Your task to perform on an android device: set the timer Image 0: 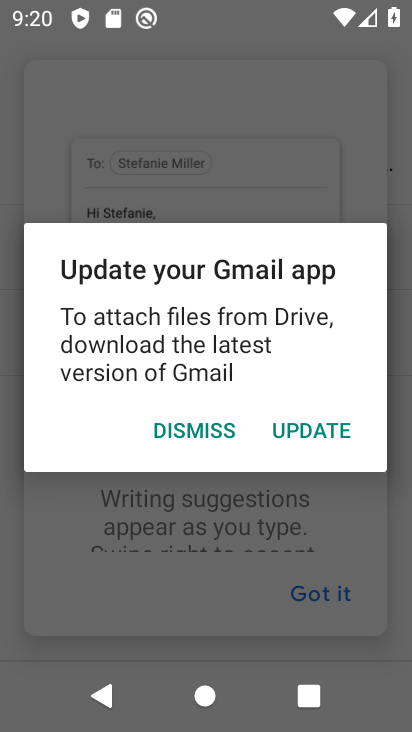
Step 0: press home button
Your task to perform on an android device: set the timer Image 1: 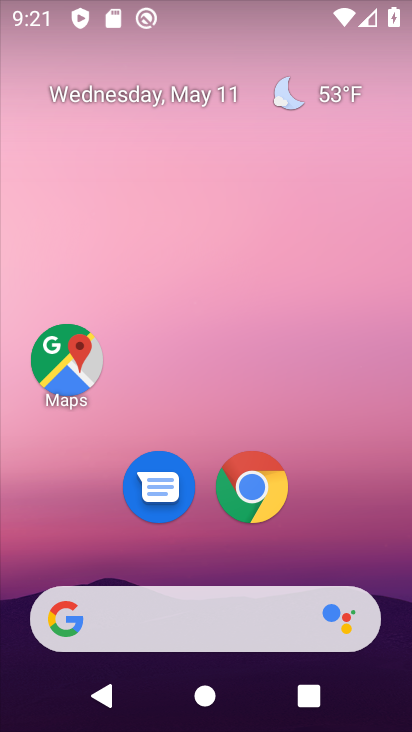
Step 1: drag from (212, 568) to (200, 143)
Your task to perform on an android device: set the timer Image 2: 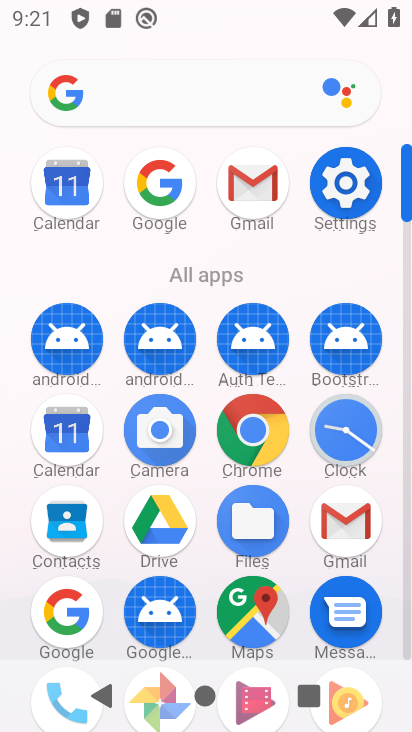
Step 2: click (317, 436)
Your task to perform on an android device: set the timer Image 3: 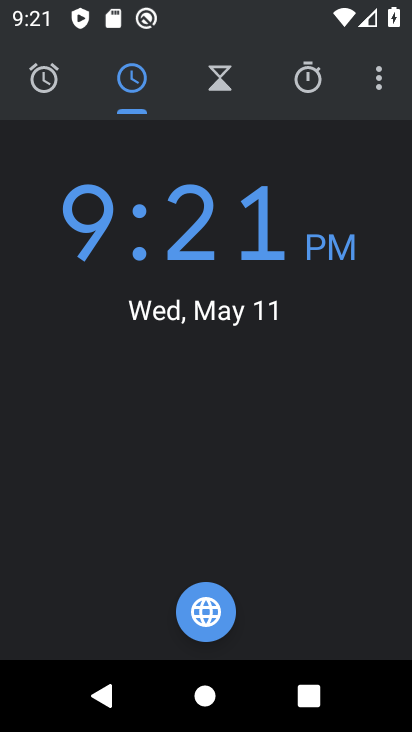
Step 3: click (60, 81)
Your task to perform on an android device: set the timer Image 4: 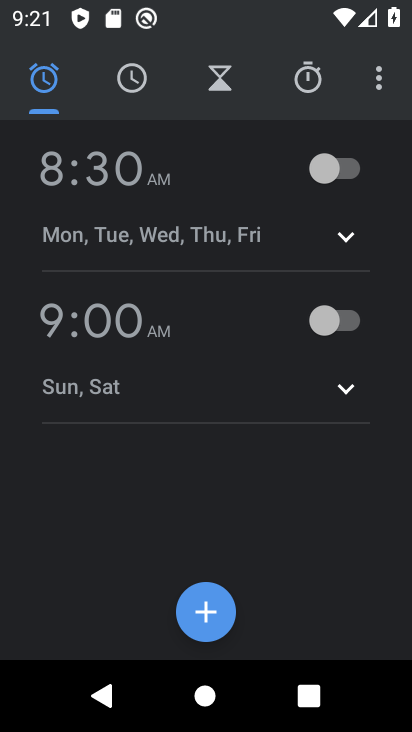
Step 4: click (336, 165)
Your task to perform on an android device: set the timer Image 5: 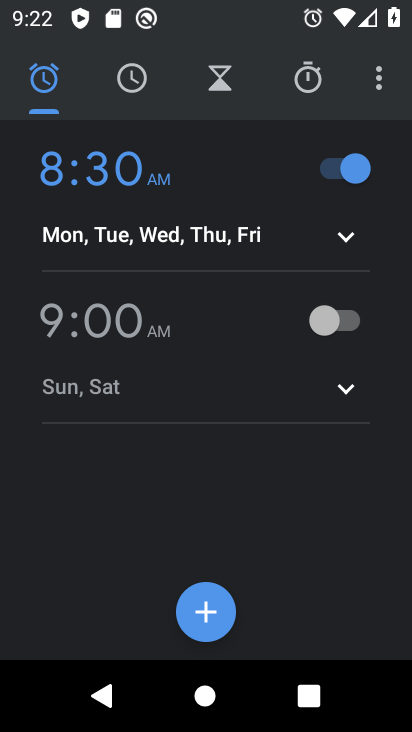
Step 5: click (233, 88)
Your task to perform on an android device: set the timer Image 6: 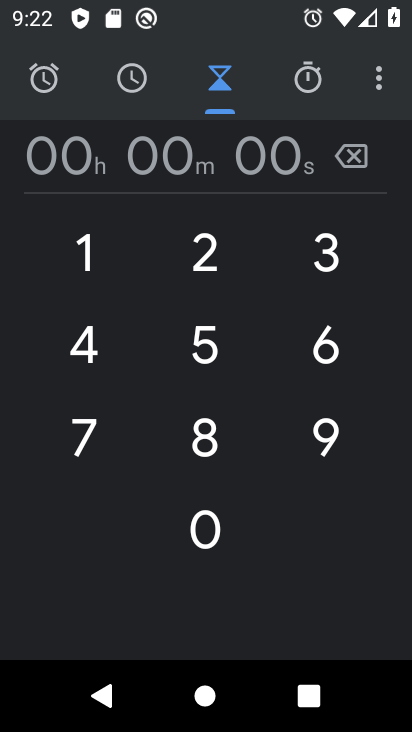
Step 6: click (276, 151)
Your task to perform on an android device: set the timer Image 7: 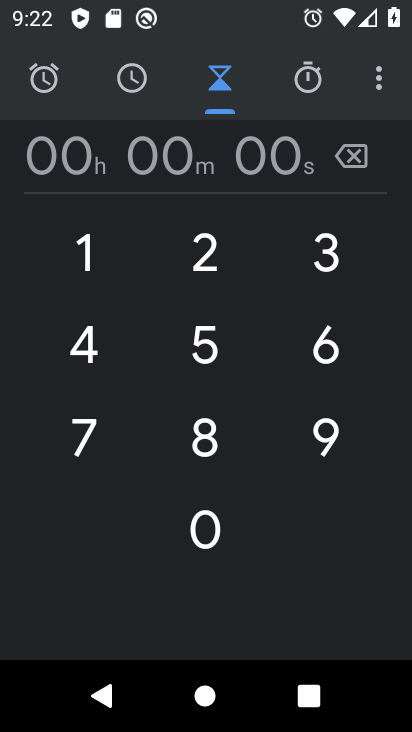
Step 7: type "23"
Your task to perform on an android device: set the timer Image 8: 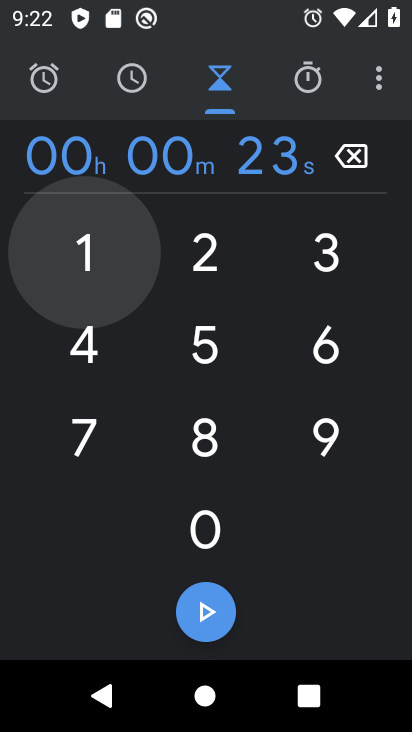
Step 8: click (218, 608)
Your task to perform on an android device: set the timer Image 9: 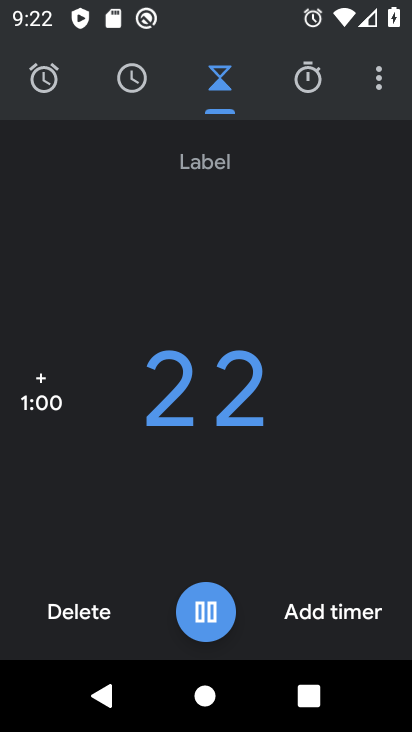
Step 9: task complete